Your task to perform on an android device: Check the news Image 0: 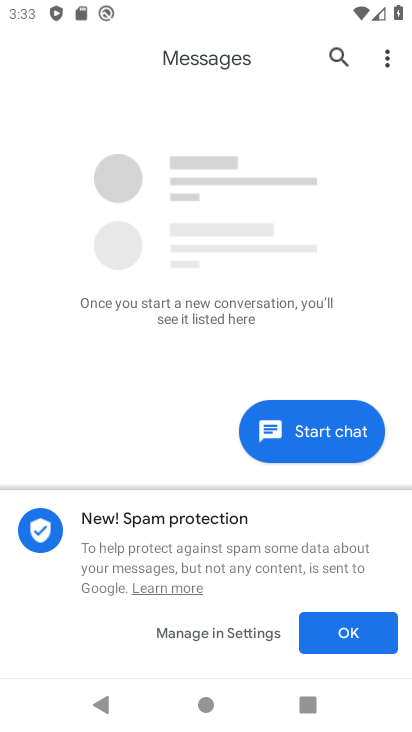
Step 0: press home button
Your task to perform on an android device: Check the news Image 1: 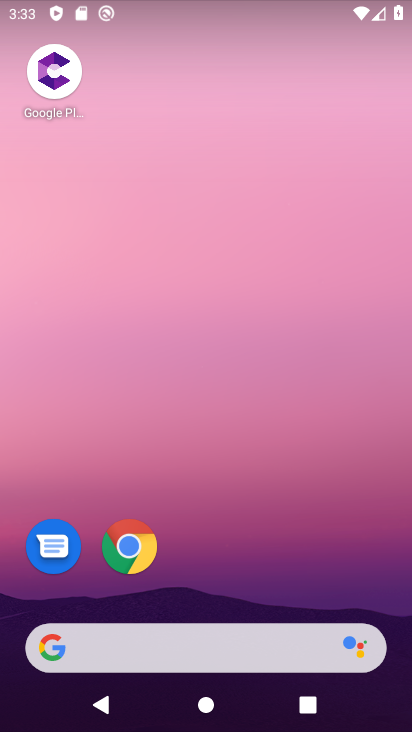
Step 1: task complete